Your task to perform on an android device: Go to Amazon Image 0: 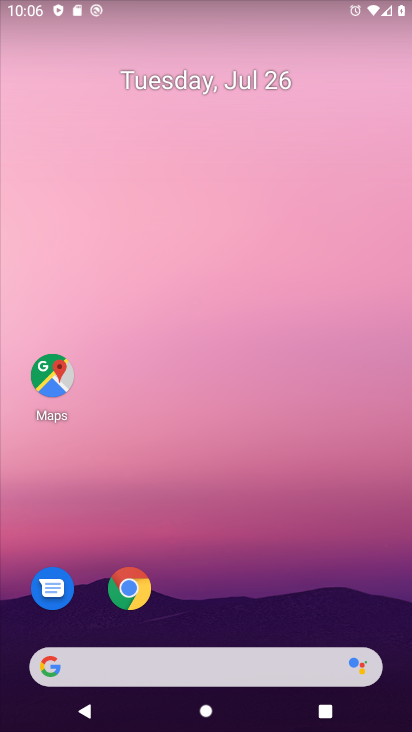
Step 0: click (124, 580)
Your task to perform on an android device: Go to Amazon Image 1: 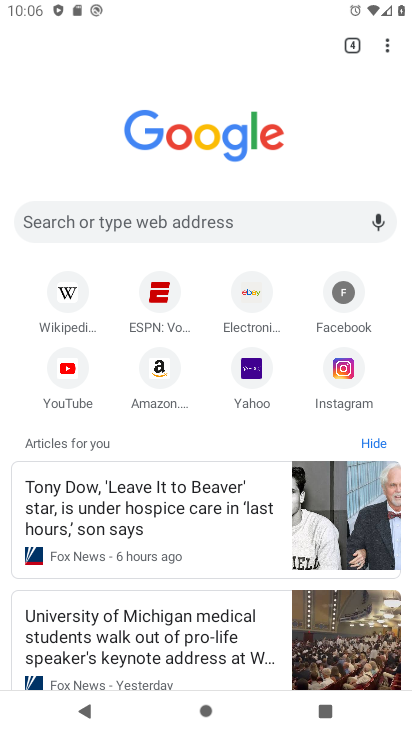
Step 1: click (163, 369)
Your task to perform on an android device: Go to Amazon Image 2: 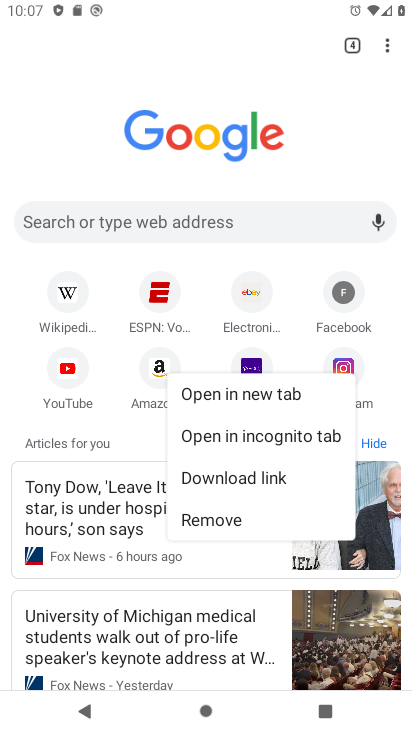
Step 2: click (156, 365)
Your task to perform on an android device: Go to Amazon Image 3: 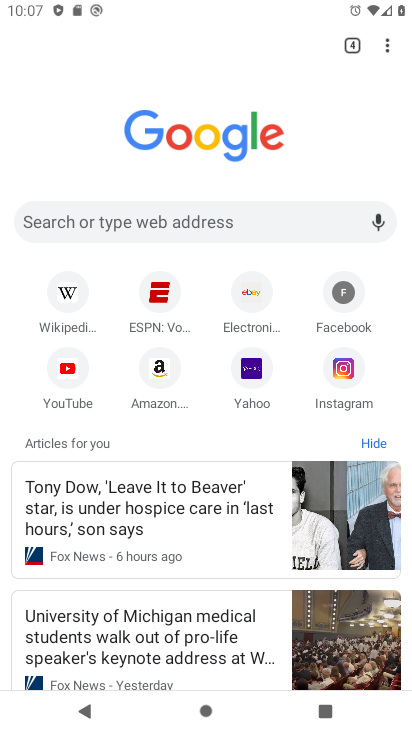
Step 3: click (156, 365)
Your task to perform on an android device: Go to Amazon Image 4: 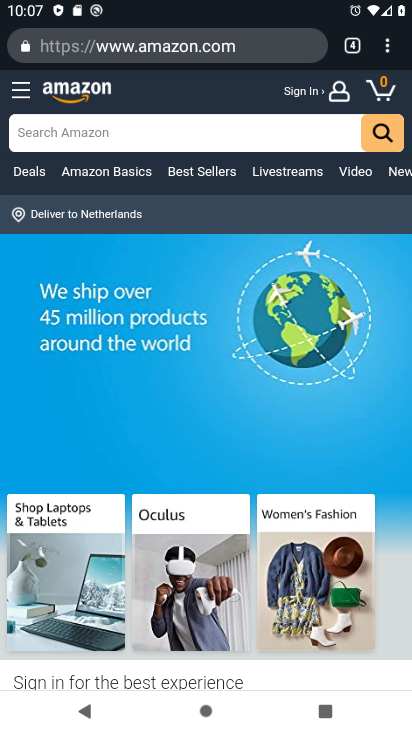
Step 4: task complete